Your task to perform on an android device: turn on location history Image 0: 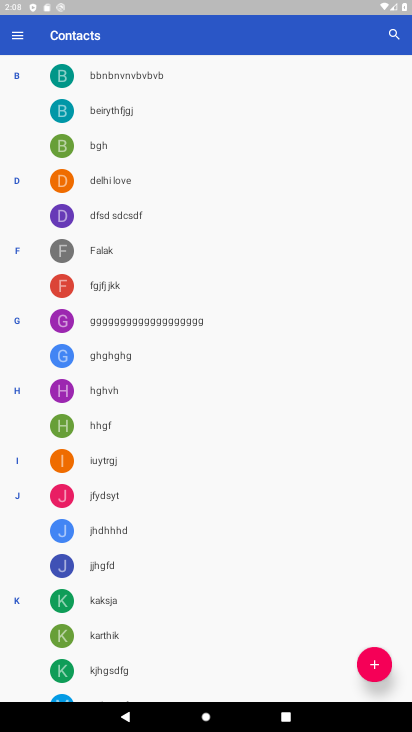
Step 0: press home button
Your task to perform on an android device: turn on location history Image 1: 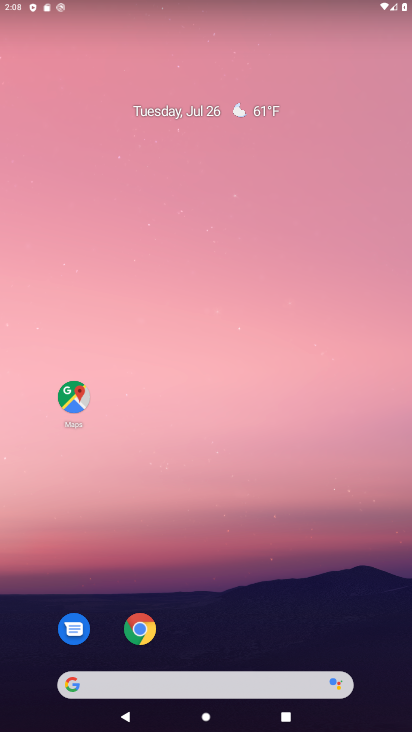
Step 1: click (72, 389)
Your task to perform on an android device: turn on location history Image 2: 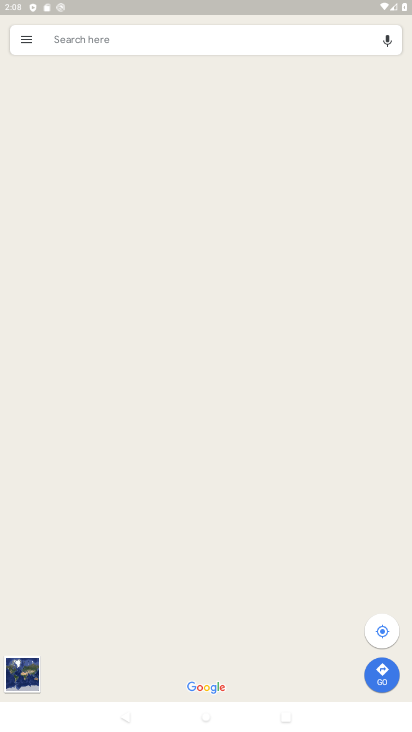
Step 2: click (24, 41)
Your task to perform on an android device: turn on location history Image 3: 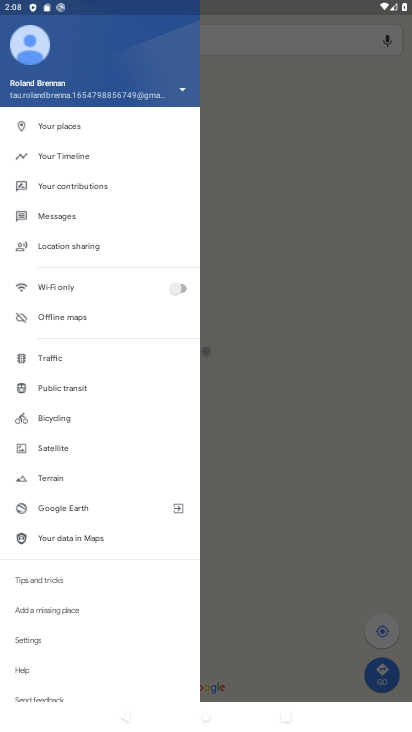
Step 3: click (74, 154)
Your task to perform on an android device: turn on location history Image 4: 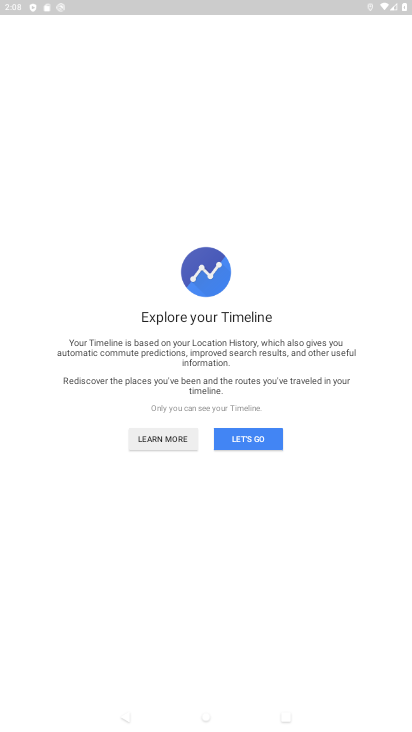
Step 4: click (258, 437)
Your task to perform on an android device: turn on location history Image 5: 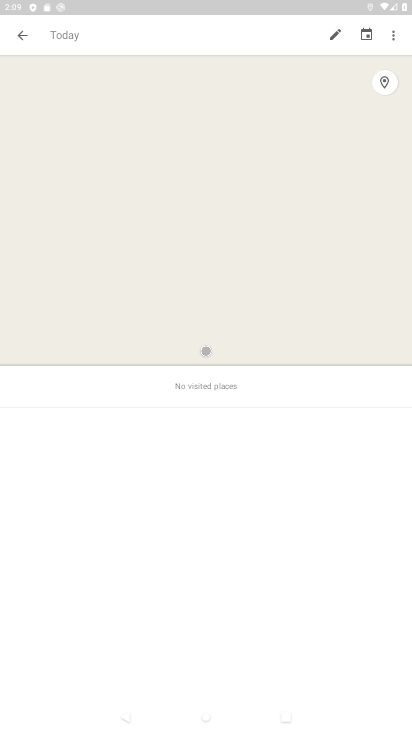
Step 5: click (392, 36)
Your task to perform on an android device: turn on location history Image 6: 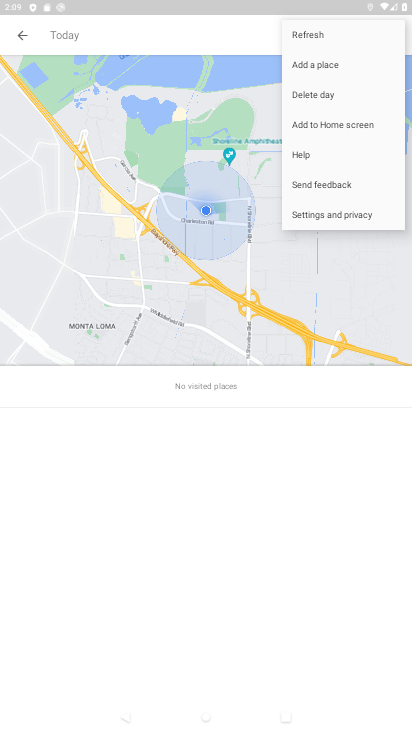
Step 6: click (318, 215)
Your task to perform on an android device: turn on location history Image 7: 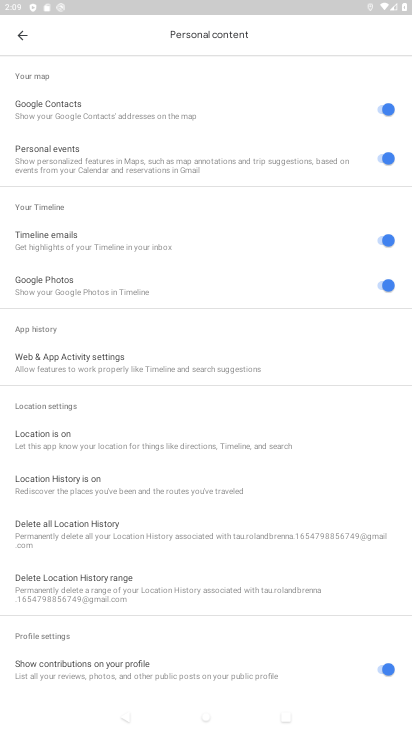
Step 7: click (66, 475)
Your task to perform on an android device: turn on location history Image 8: 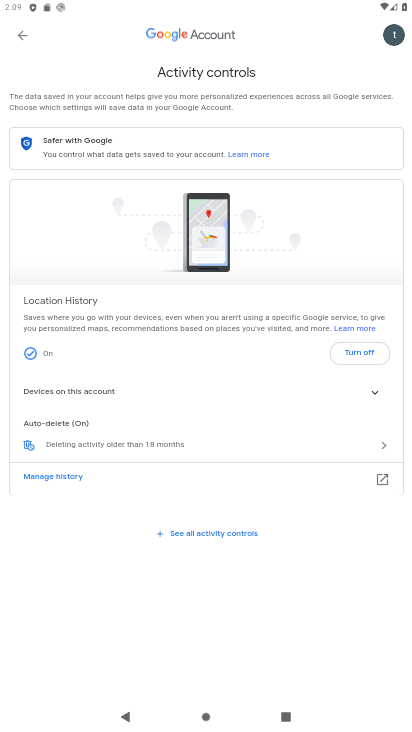
Step 8: task complete